Your task to perform on an android device: Open Android settings Image 0: 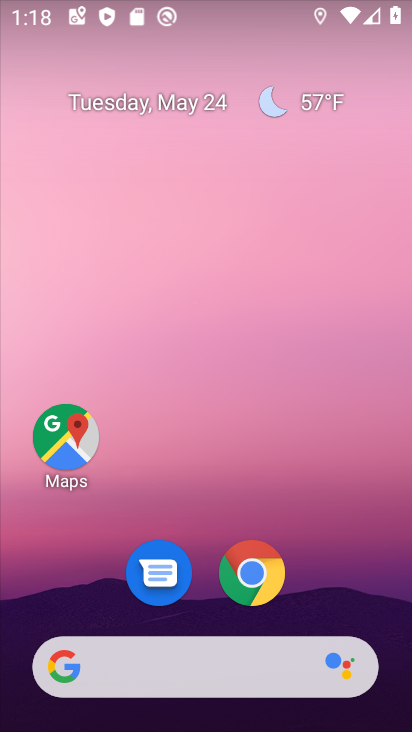
Step 0: press home button
Your task to perform on an android device: Open Android settings Image 1: 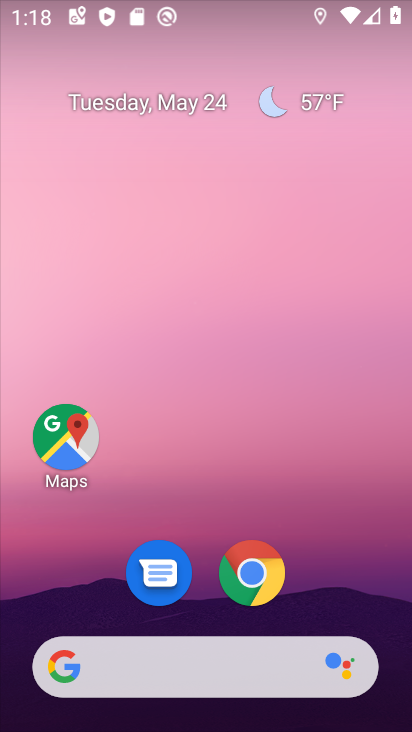
Step 1: drag from (379, 594) to (392, 118)
Your task to perform on an android device: Open Android settings Image 2: 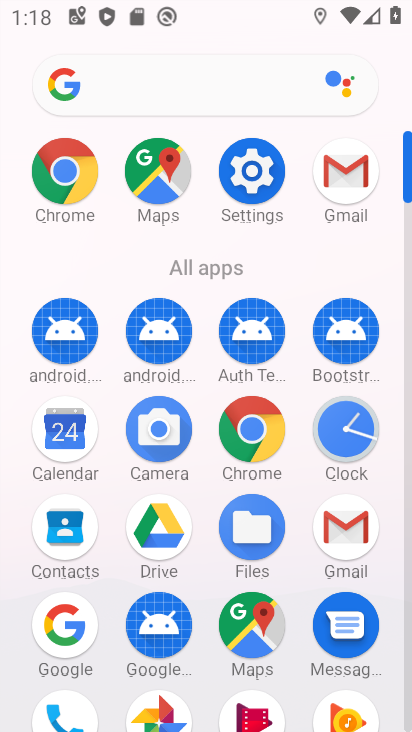
Step 2: click (255, 168)
Your task to perform on an android device: Open Android settings Image 3: 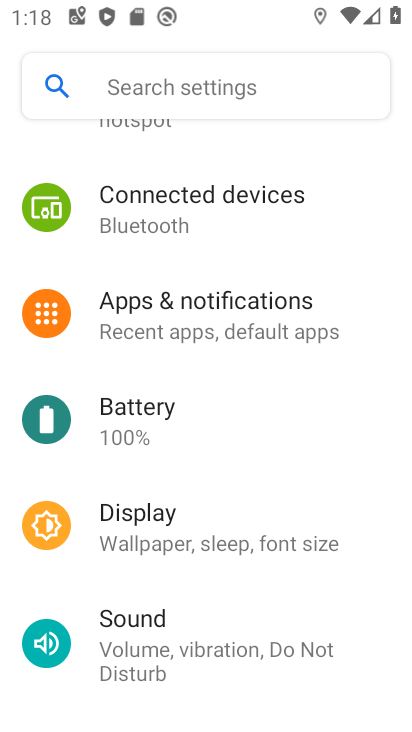
Step 3: task complete